Your task to perform on an android device: open app "Adobe Acrobat Reader" (install if not already installed) and go to login screen Image 0: 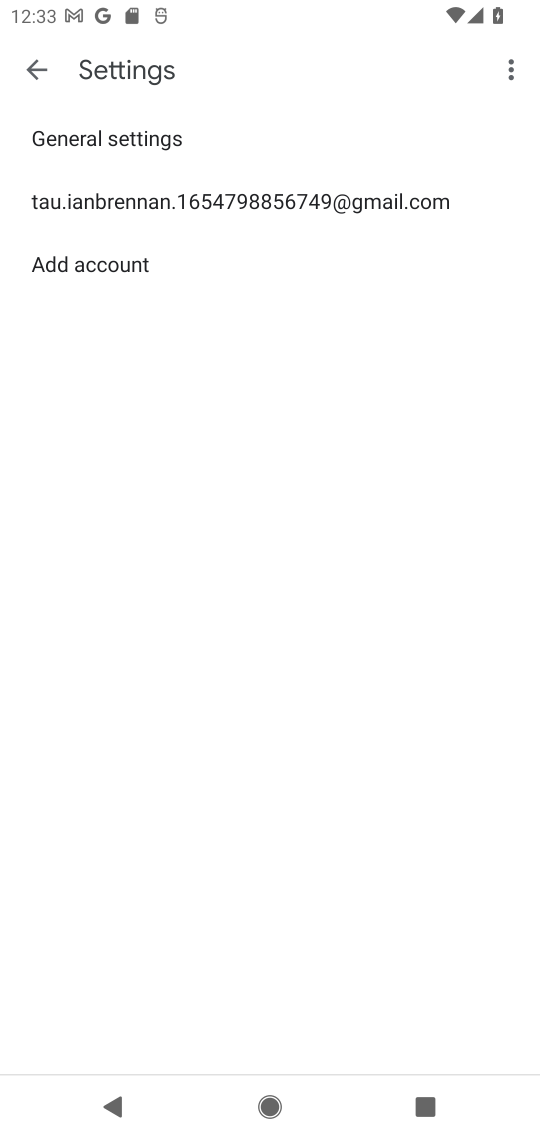
Step 0: press home button
Your task to perform on an android device: open app "Adobe Acrobat Reader" (install if not already installed) and go to login screen Image 1: 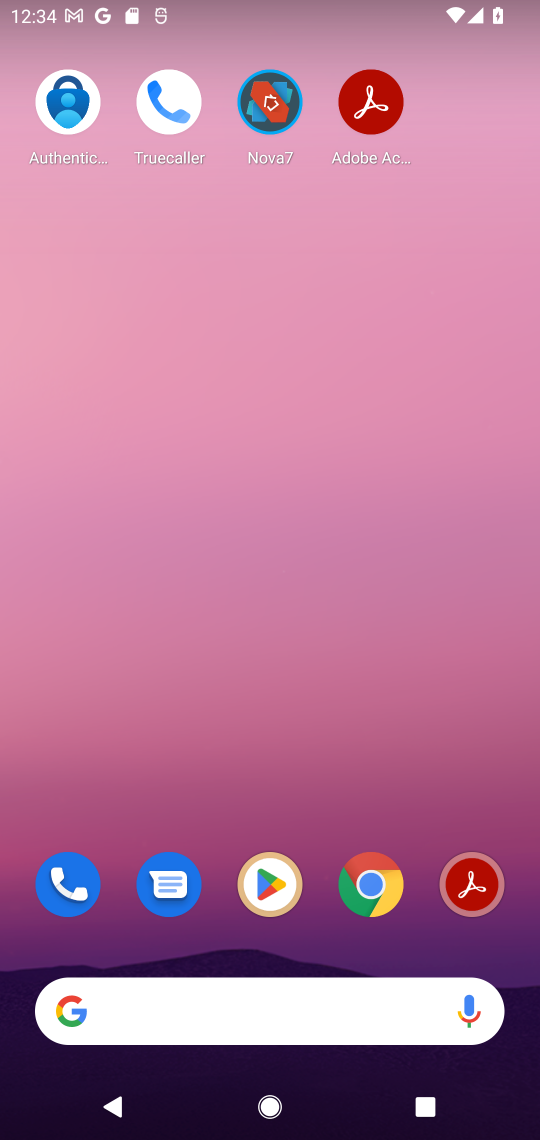
Step 1: drag from (227, 1007) to (252, 38)
Your task to perform on an android device: open app "Adobe Acrobat Reader" (install if not already installed) and go to login screen Image 2: 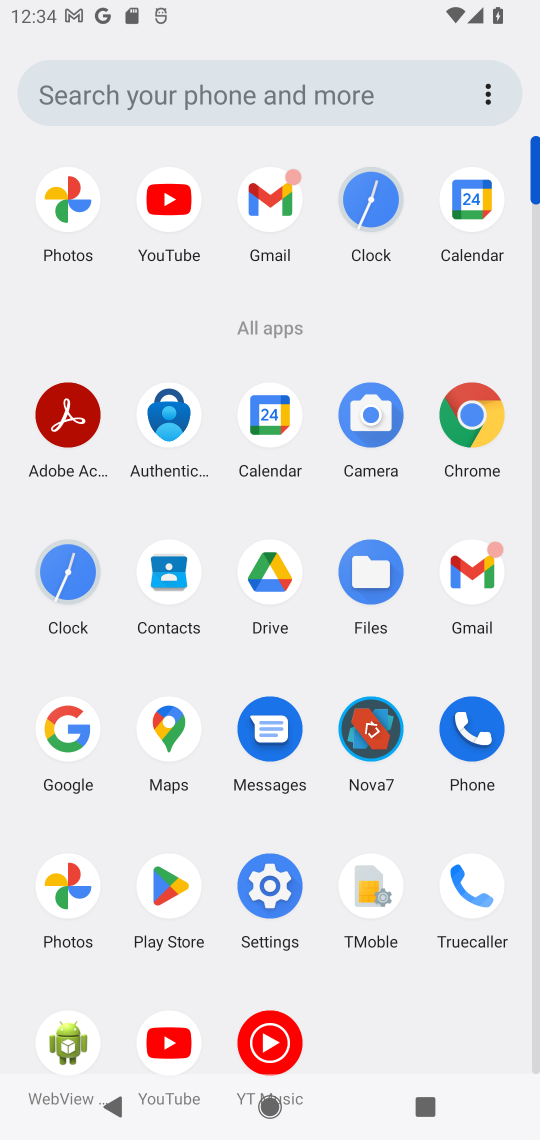
Step 2: click (172, 889)
Your task to perform on an android device: open app "Adobe Acrobat Reader" (install if not already installed) and go to login screen Image 3: 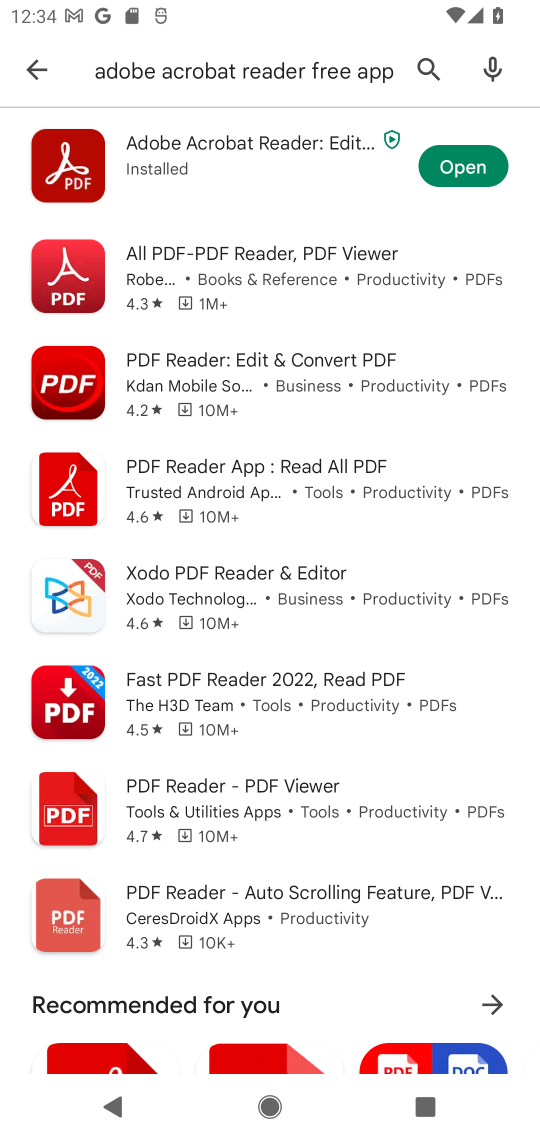
Step 3: press back button
Your task to perform on an android device: open app "Adobe Acrobat Reader" (install if not already installed) and go to login screen Image 4: 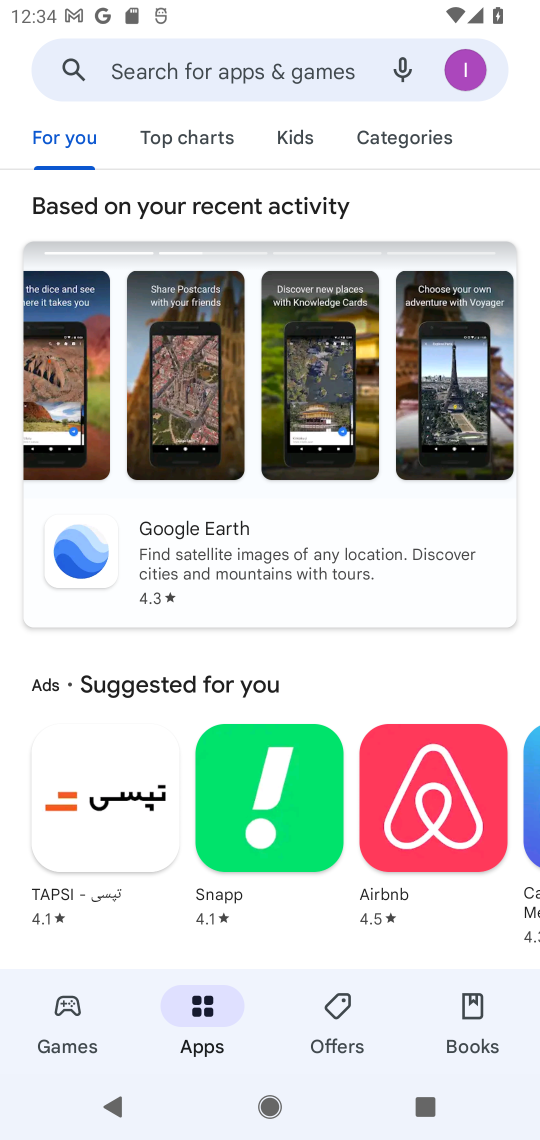
Step 4: click (297, 62)
Your task to perform on an android device: open app "Adobe Acrobat Reader" (install if not already installed) and go to login screen Image 5: 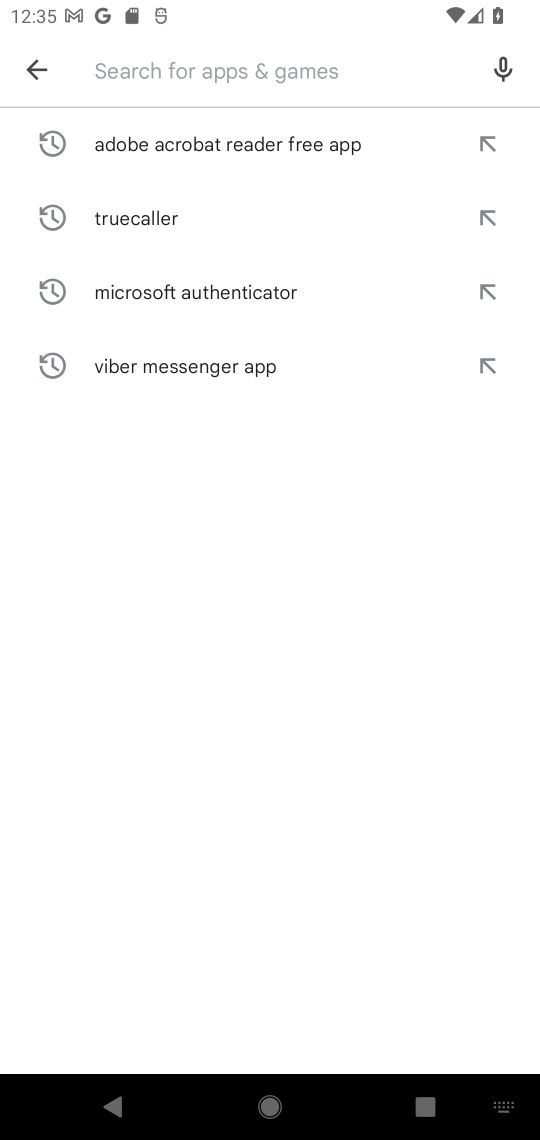
Step 5: type "Adobe Acrobat Reader"
Your task to perform on an android device: open app "Adobe Acrobat Reader" (install if not already installed) and go to login screen Image 6: 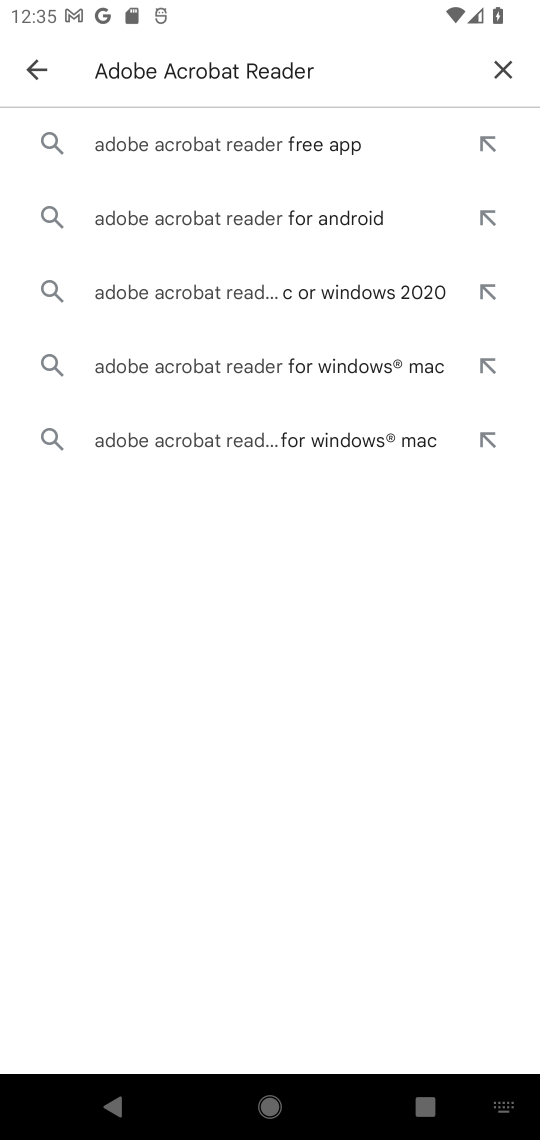
Step 6: click (162, 140)
Your task to perform on an android device: open app "Adobe Acrobat Reader" (install if not already installed) and go to login screen Image 7: 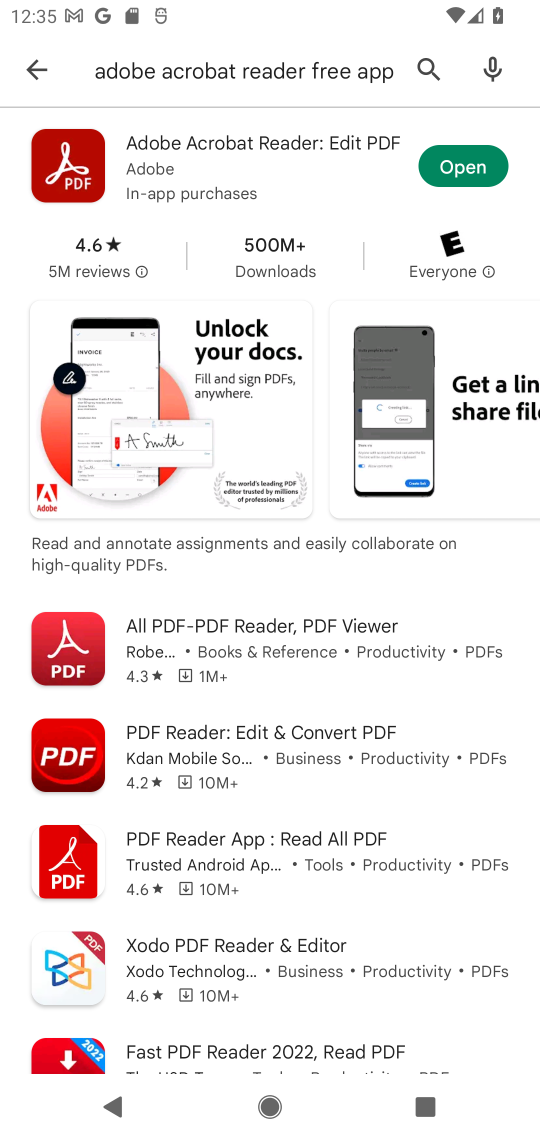
Step 7: click (457, 170)
Your task to perform on an android device: open app "Adobe Acrobat Reader" (install if not already installed) and go to login screen Image 8: 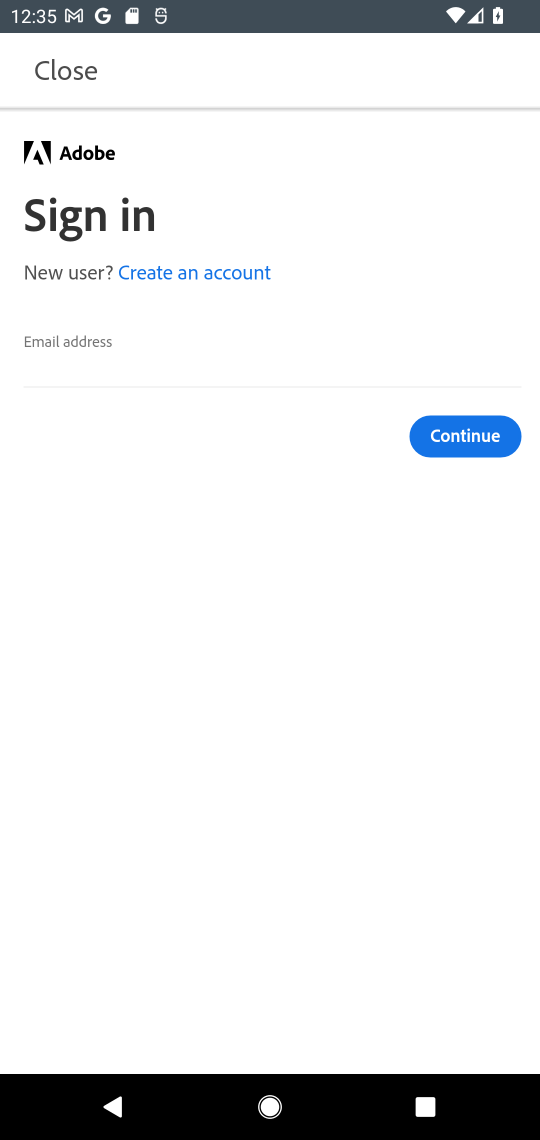
Step 8: task complete